Your task to perform on an android device: Open sound settings Image 0: 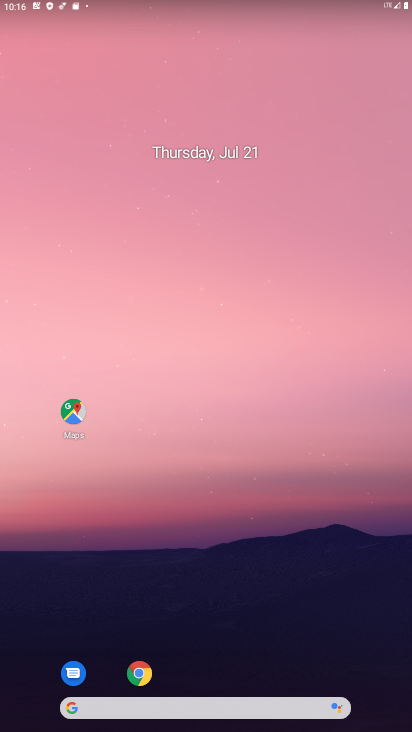
Step 0: drag from (249, 565) to (192, 133)
Your task to perform on an android device: Open sound settings Image 1: 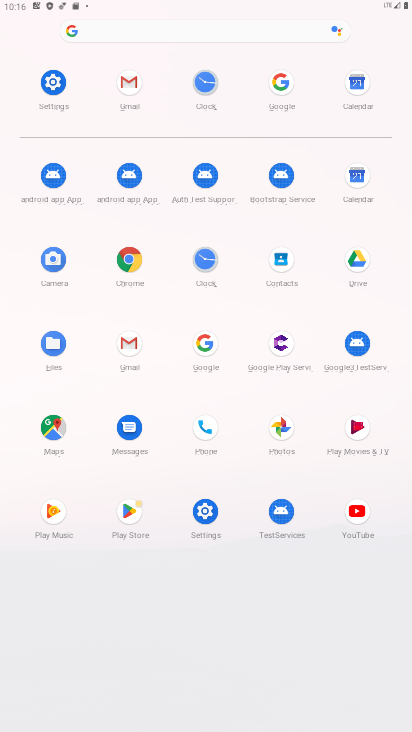
Step 1: click (70, 88)
Your task to perform on an android device: Open sound settings Image 2: 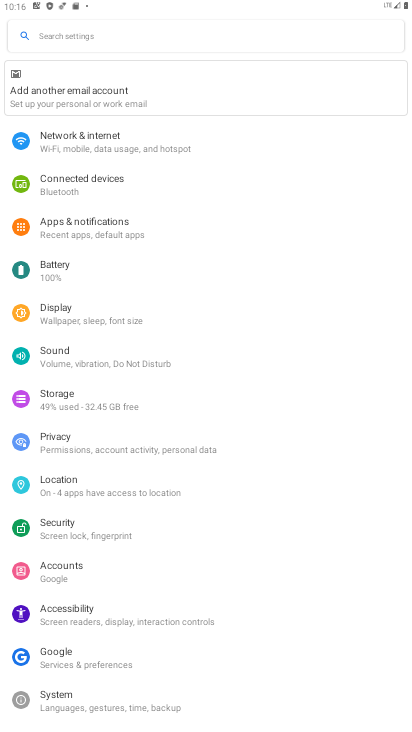
Step 2: click (83, 368)
Your task to perform on an android device: Open sound settings Image 3: 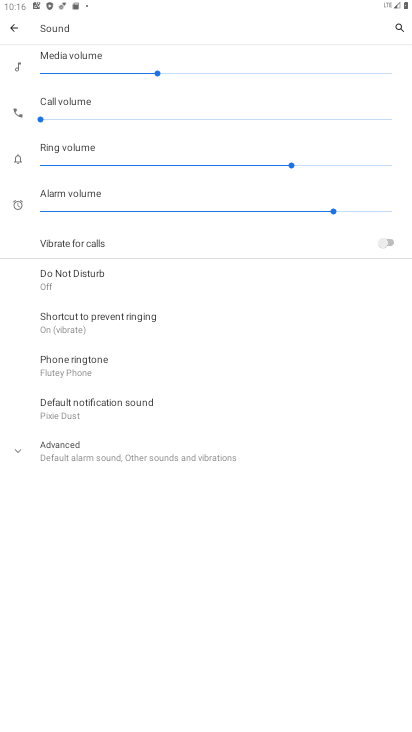
Step 3: task complete